Your task to perform on an android device: turn off location history Image 0: 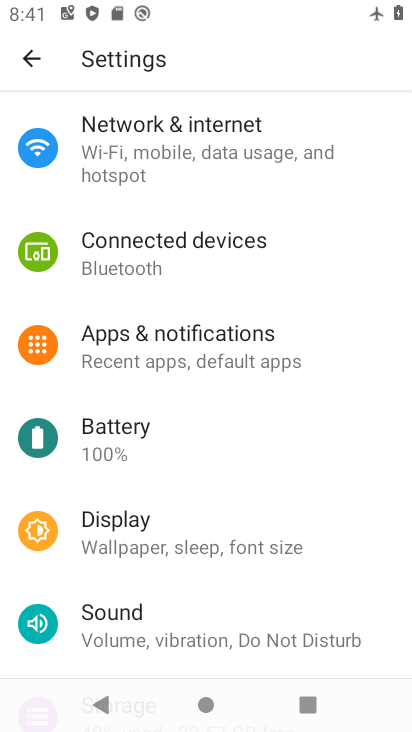
Step 0: press home button
Your task to perform on an android device: turn off location history Image 1: 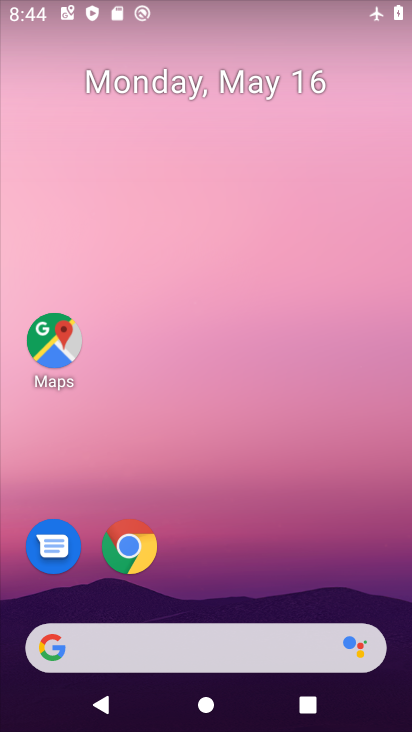
Step 1: drag from (169, 676) to (302, 236)
Your task to perform on an android device: turn off location history Image 2: 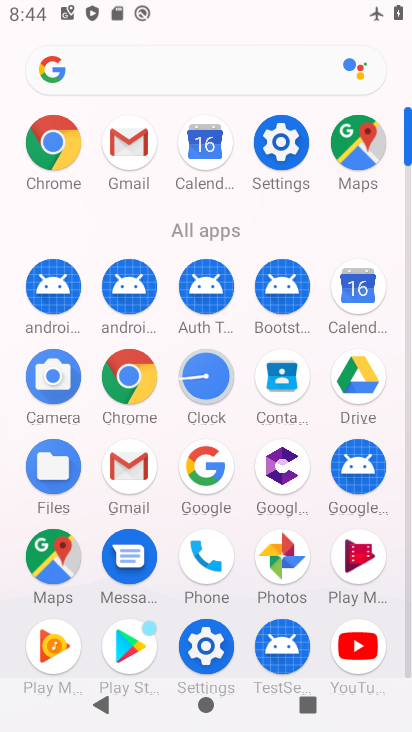
Step 2: click (271, 144)
Your task to perform on an android device: turn off location history Image 3: 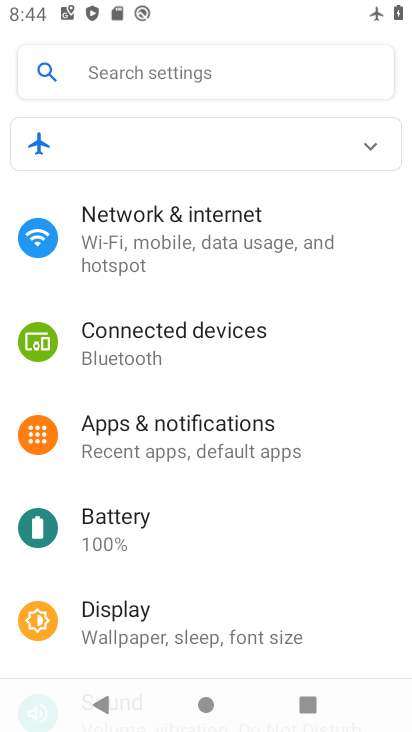
Step 3: click (255, 70)
Your task to perform on an android device: turn off location history Image 4: 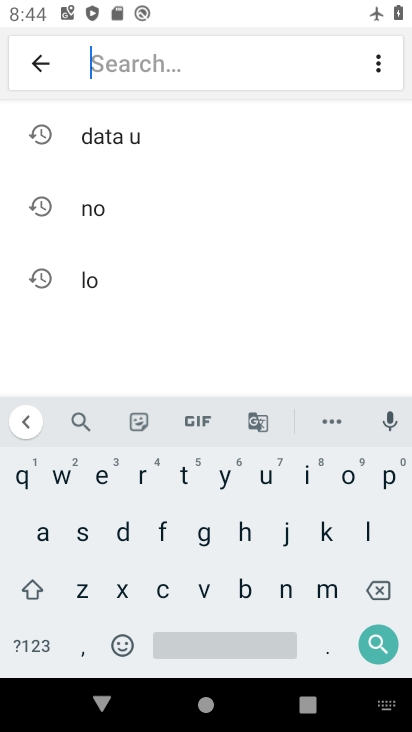
Step 4: click (370, 539)
Your task to perform on an android device: turn off location history Image 5: 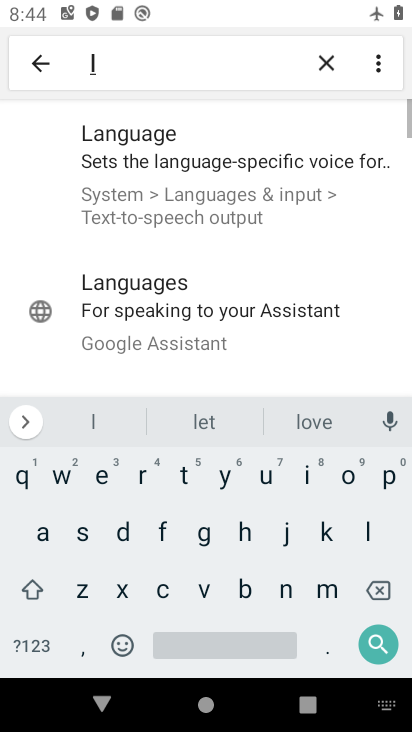
Step 5: click (358, 479)
Your task to perform on an android device: turn off location history Image 6: 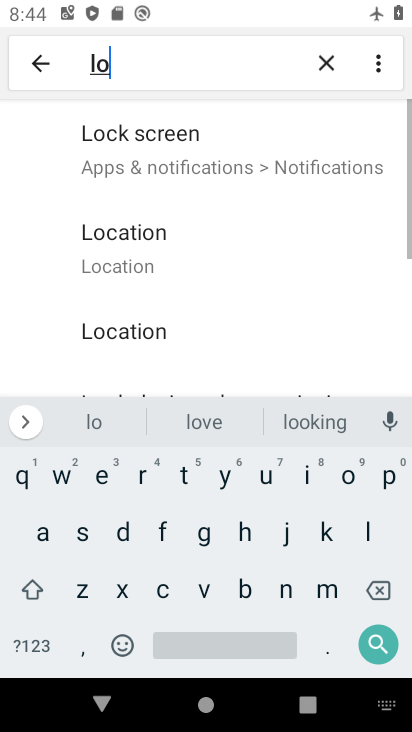
Step 6: click (159, 593)
Your task to perform on an android device: turn off location history Image 7: 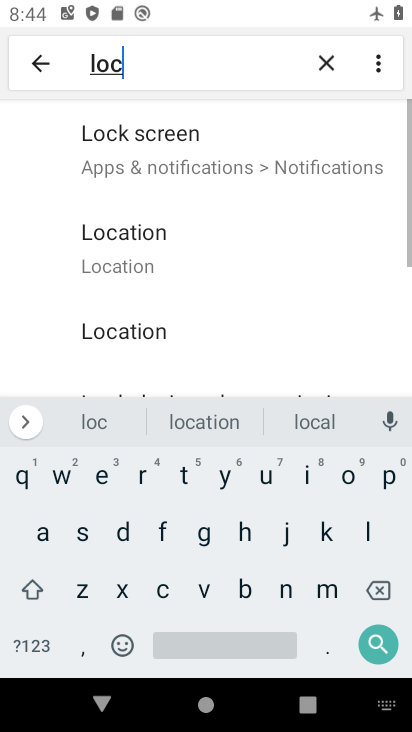
Step 7: click (123, 241)
Your task to perform on an android device: turn off location history Image 8: 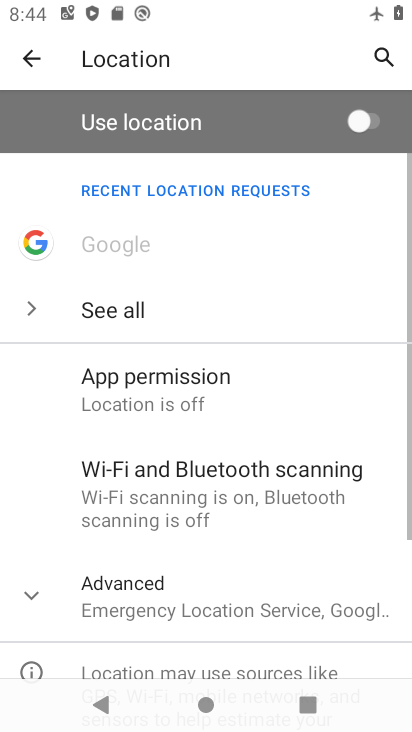
Step 8: drag from (125, 579) to (237, 383)
Your task to perform on an android device: turn off location history Image 9: 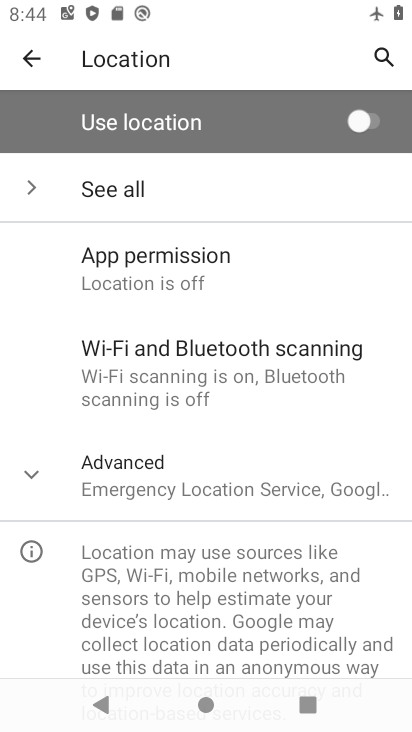
Step 9: click (59, 481)
Your task to perform on an android device: turn off location history Image 10: 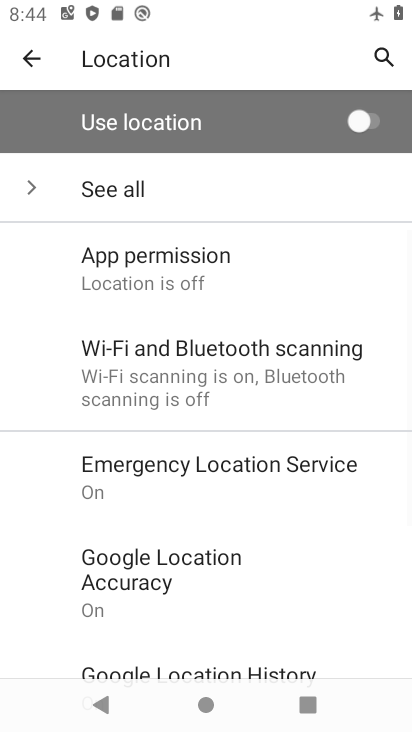
Step 10: click (163, 665)
Your task to perform on an android device: turn off location history Image 11: 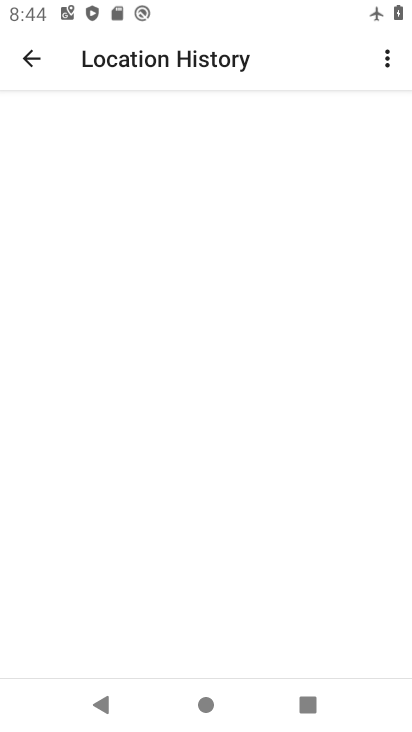
Step 11: task complete